Your task to perform on an android device: Go to Android settings Image 0: 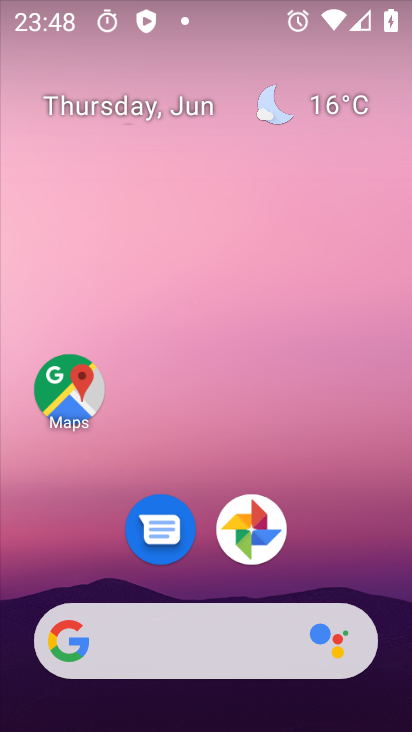
Step 0: drag from (219, 589) to (178, 161)
Your task to perform on an android device: Go to Android settings Image 1: 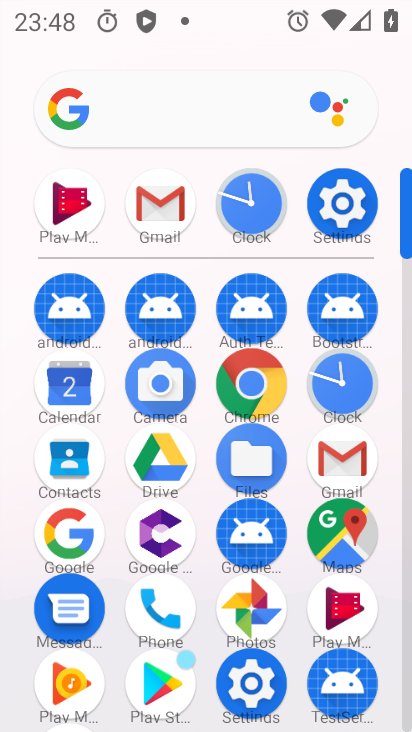
Step 1: click (269, 674)
Your task to perform on an android device: Go to Android settings Image 2: 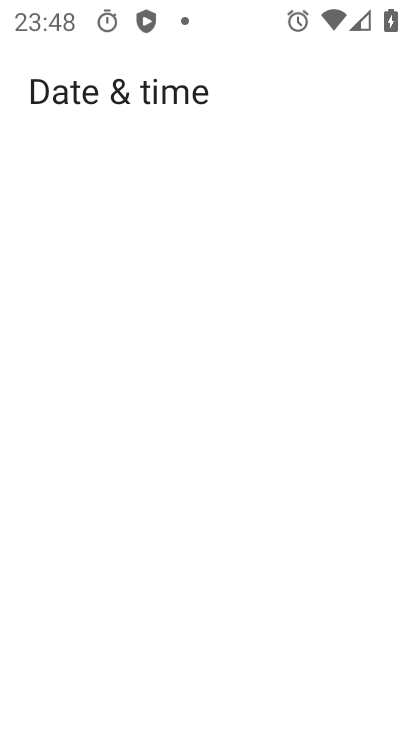
Step 2: click (261, 686)
Your task to perform on an android device: Go to Android settings Image 3: 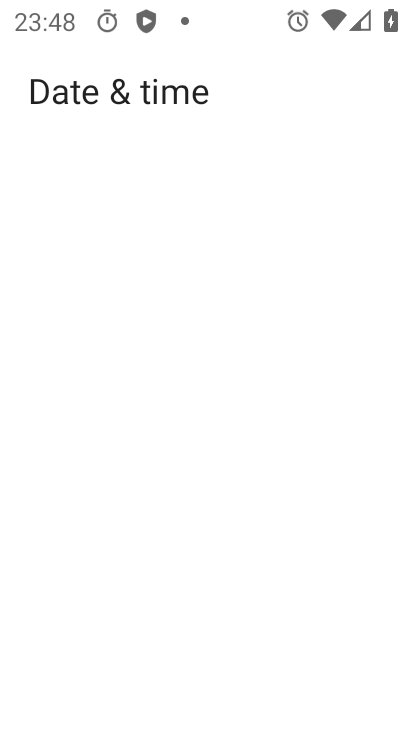
Step 3: click (261, 685)
Your task to perform on an android device: Go to Android settings Image 4: 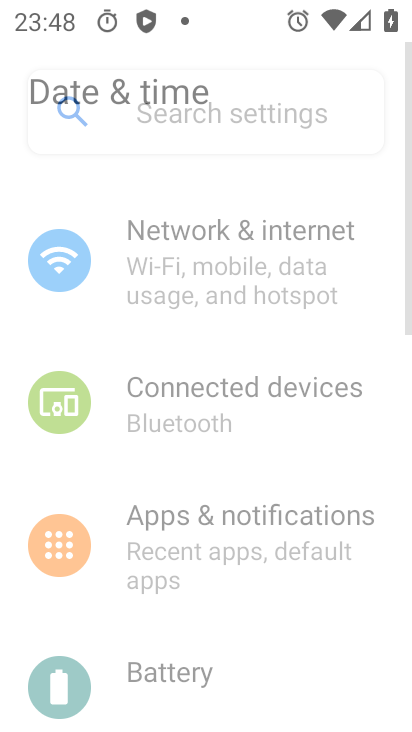
Step 4: click (260, 684)
Your task to perform on an android device: Go to Android settings Image 5: 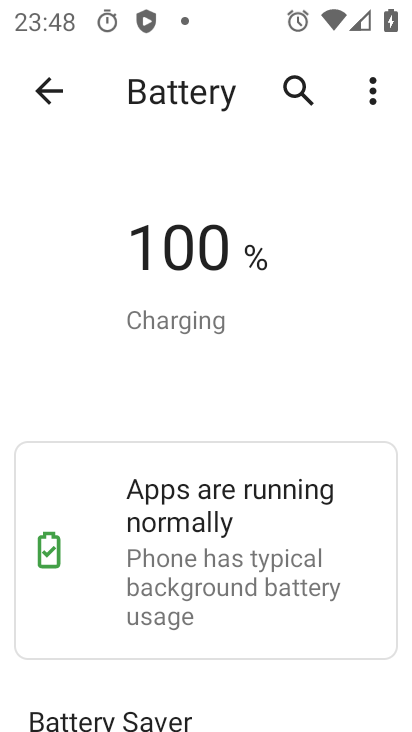
Step 5: click (30, 93)
Your task to perform on an android device: Go to Android settings Image 6: 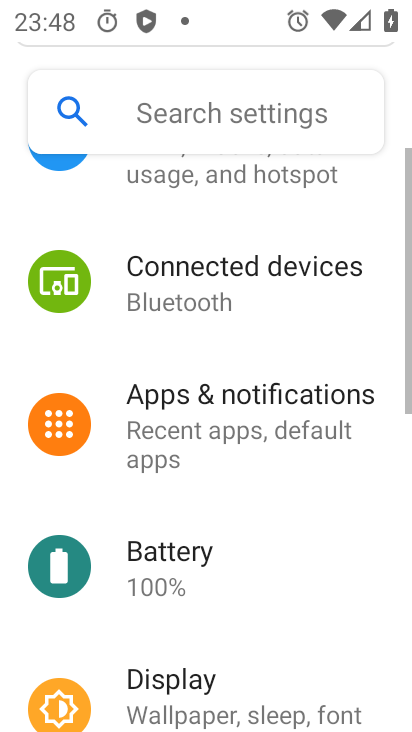
Step 6: drag from (217, 489) to (200, 58)
Your task to perform on an android device: Go to Android settings Image 7: 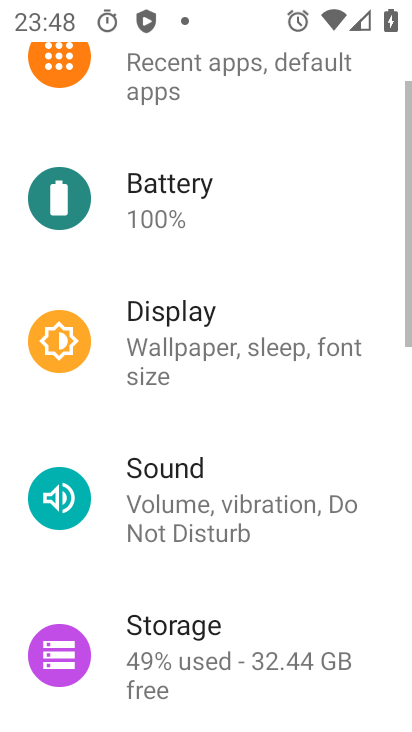
Step 7: drag from (183, 460) to (159, 154)
Your task to perform on an android device: Go to Android settings Image 8: 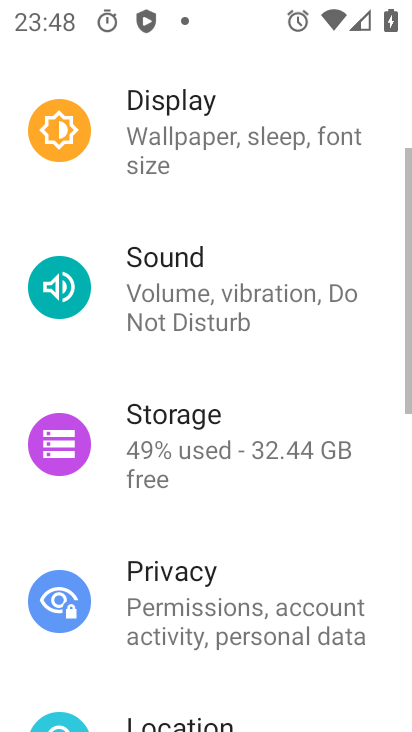
Step 8: drag from (251, 443) to (287, 33)
Your task to perform on an android device: Go to Android settings Image 9: 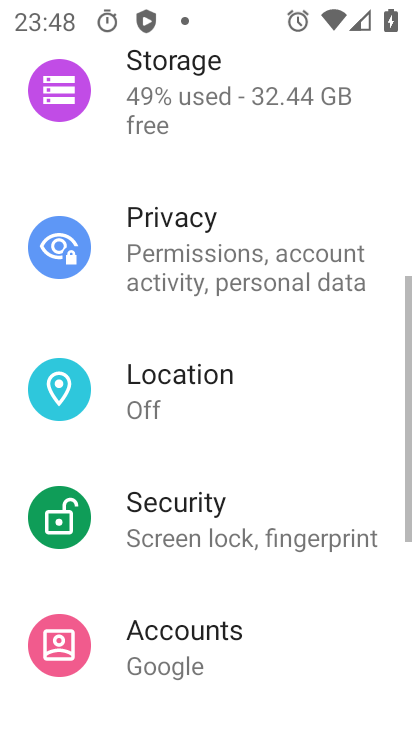
Step 9: drag from (285, 453) to (317, 12)
Your task to perform on an android device: Go to Android settings Image 10: 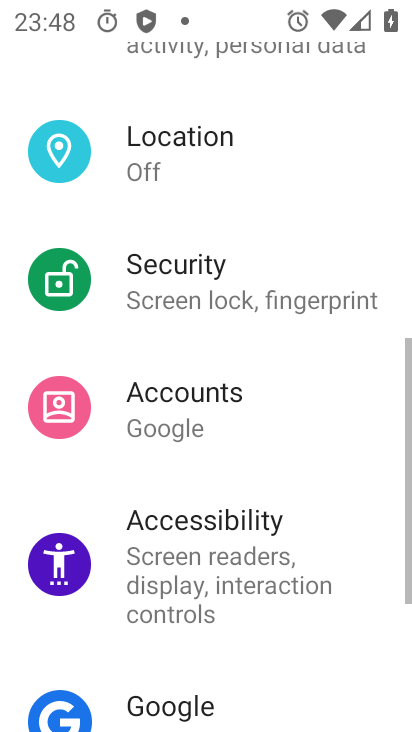
Step 10: drag from (257, 366) to (247, 25)
Your task to perform on an android device: Go to Android settings Image 11: 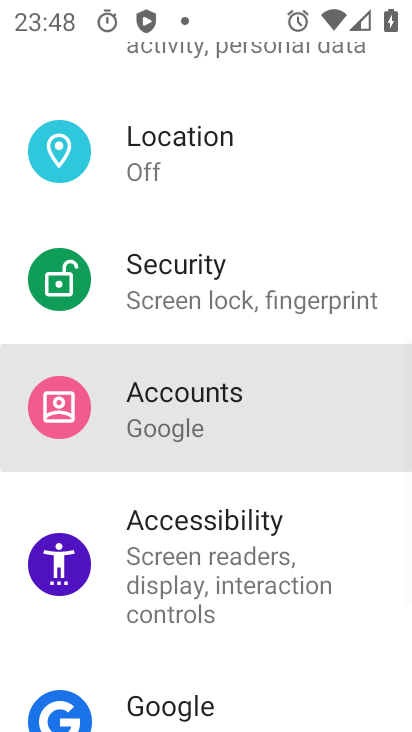
Step 11: drag from (205, 388) to (138, 55)
Your task to perform on an android device: Go to Android settings Image 12: 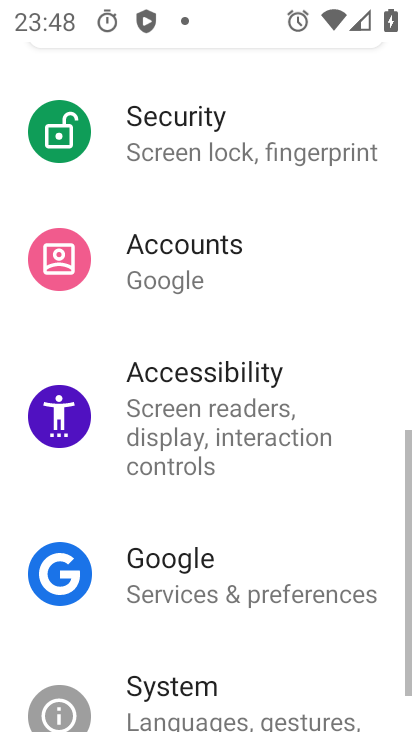
Step 12: drag from (226, 543) to (179, 81)
Your task to perform on an android device: Go to Android settings Image 13: 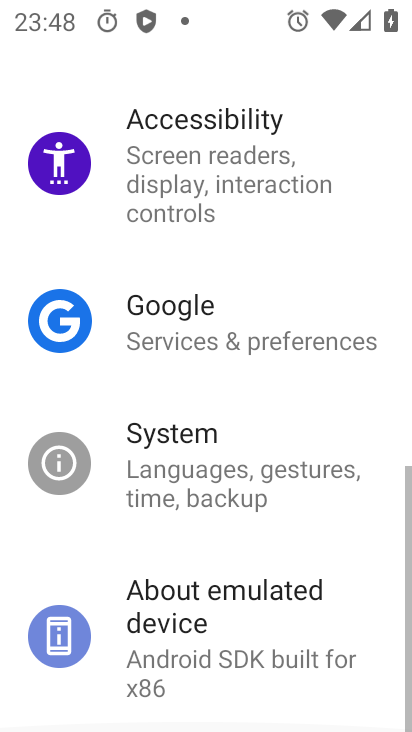
Step 13: drag from (164, 387) to (120, 176)
Your task to perform on an android device: Go to Android settings Image 14: 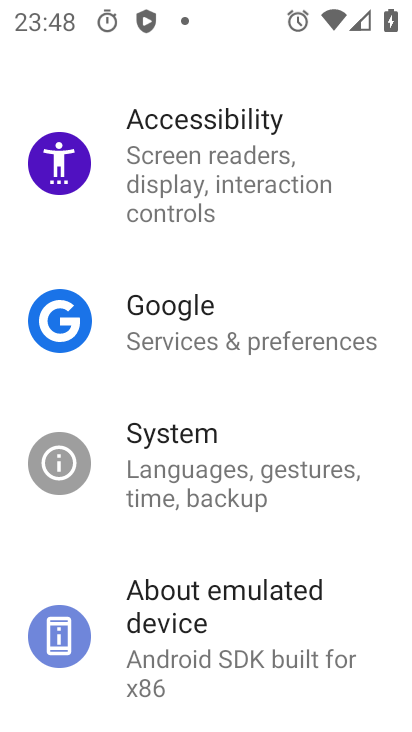
Step 14: drag from (194, 560) to (152, 285)
Your task to perform on an android device: Go to Android settings Image 15: 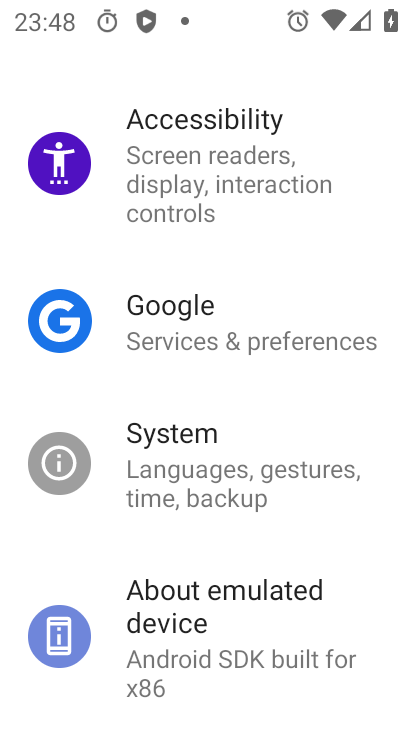
Step 15: click (179, 661)
Your task to perform on an android device: Go to Android settings Image 16: 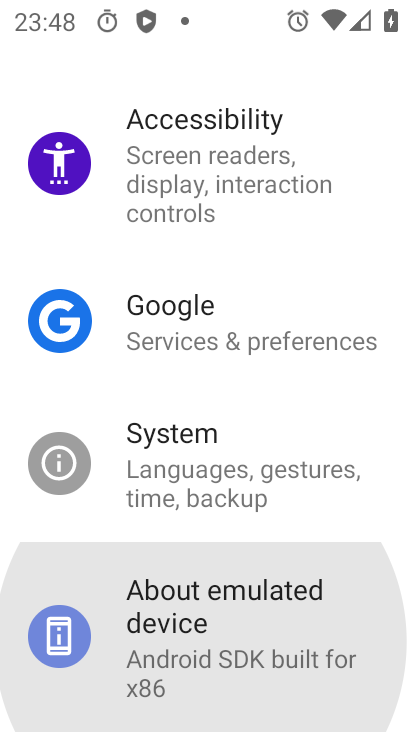
Step 16: click (179, 661)
Your task to perform on an android device: Go to Android settings Image 17: 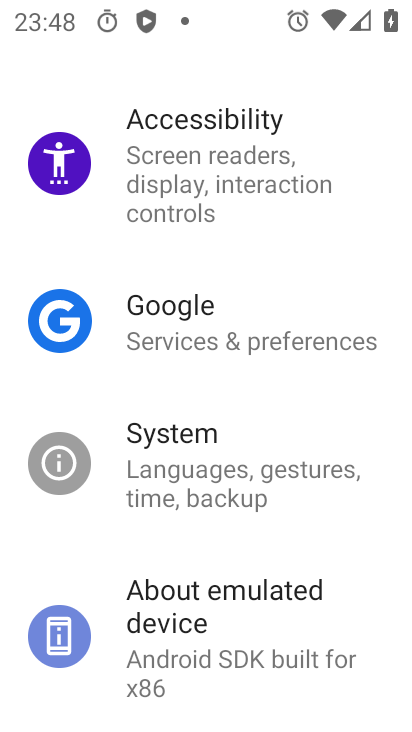
Step 17: click (180, 660)
Your task to perform on an android device: Go to Android settings Image 18: 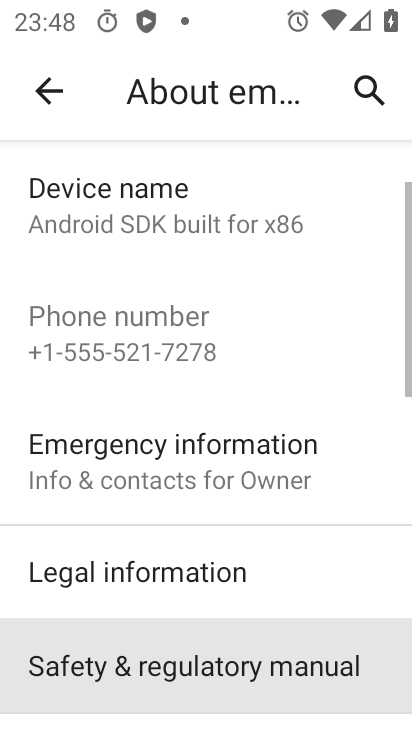
Step 18: click (180, 660)
Your task to perform on an android device: Go to Android settings Image 19: 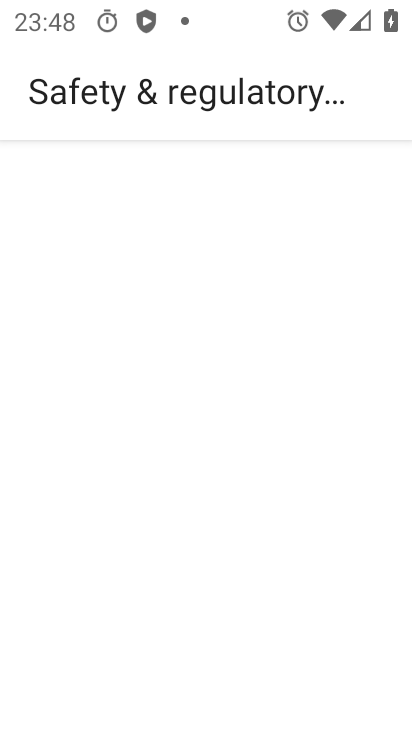
Step 19: task complete